Your task to perform on an android device: turn on translation in the chrome app Image 0: 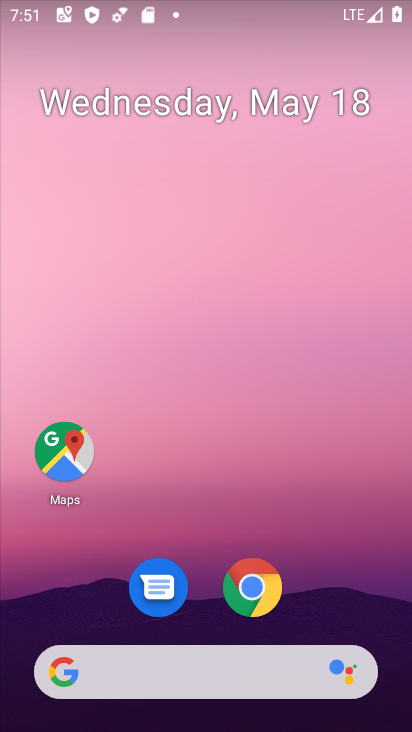
Step 0: click (249, 576)
Your task to perform on an android device: turn on translation in the chrome app Image 1: 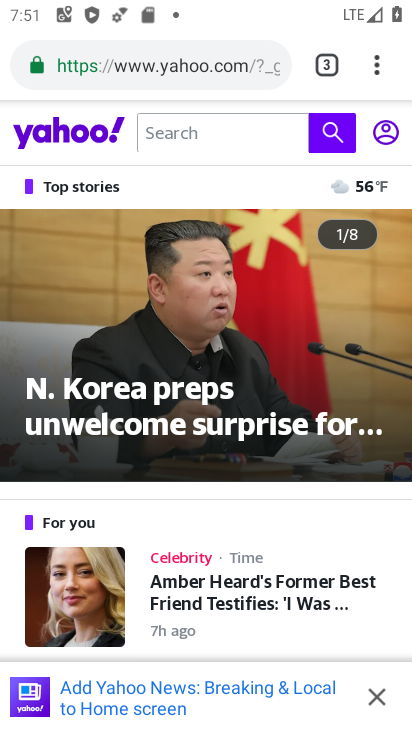
Step 1: click (391, 67)
Your task to perform on an android device: turn on translation in the chrome app Image 2: 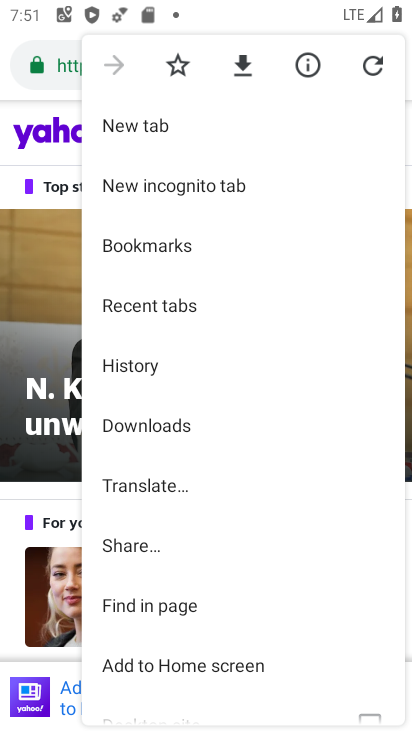
Step 2: drag from (146, 688) to (205, 225)
Your task to perform on an android device: turn on translation in the chrome app Image 3: 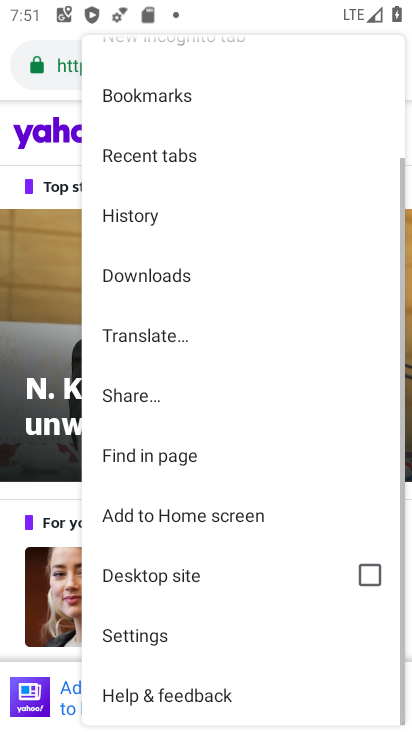
Step 3: click (145, 632)
Your task to perform on an android device: turn on translation in the chrome app Image 4: 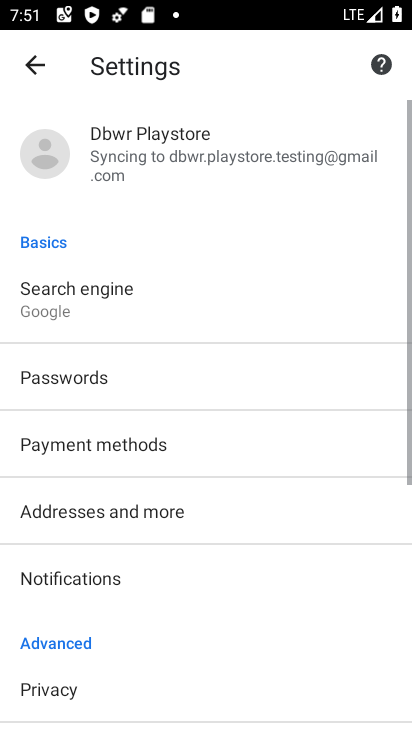
Step 4: drag from (145, 632) to (204, 107)
Your task to perform on an android device: turn on translation in the chrome app Image 5: 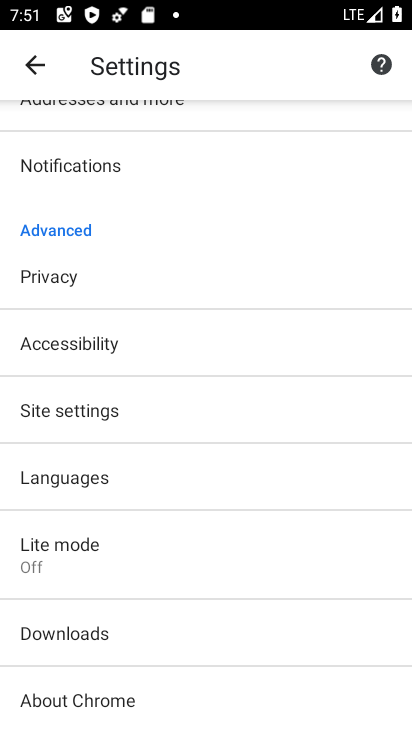
Step 5: click (113, 489)
Your task to perform on an android device: turn on translation in the chrome app Image 6: 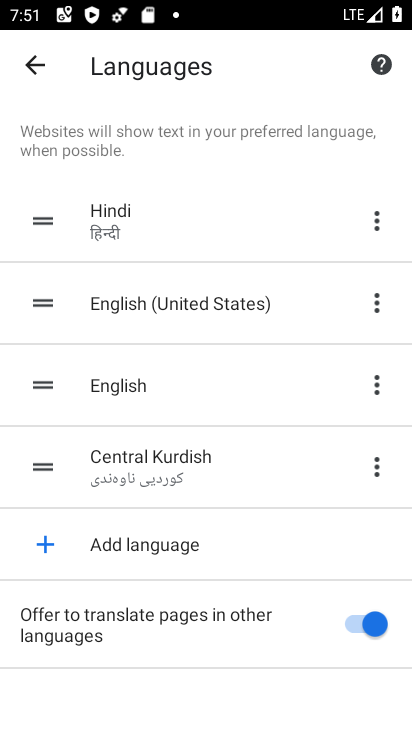
Step 6: task complete